Your task to perform on an android device: turn off location history Image 0: 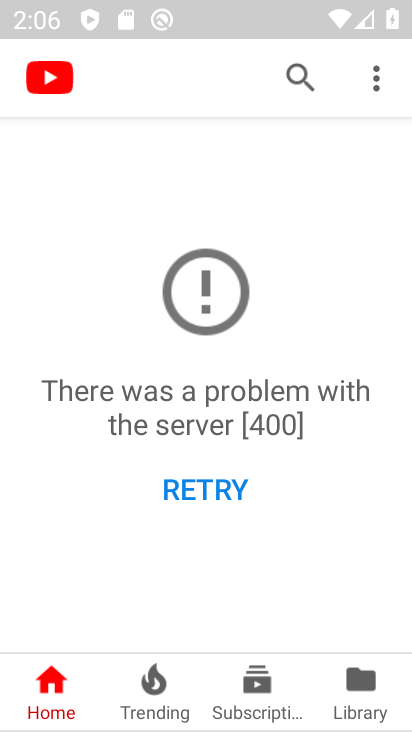
Step 0: press home button
Your task to perform on an android device: turn off location history Image 1: 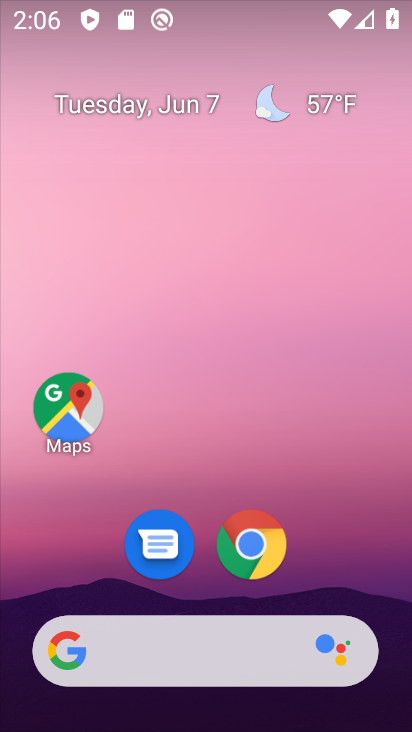
Step 1: click (54, 389)
Your task to perform on an android device: turn off location history Image 2: 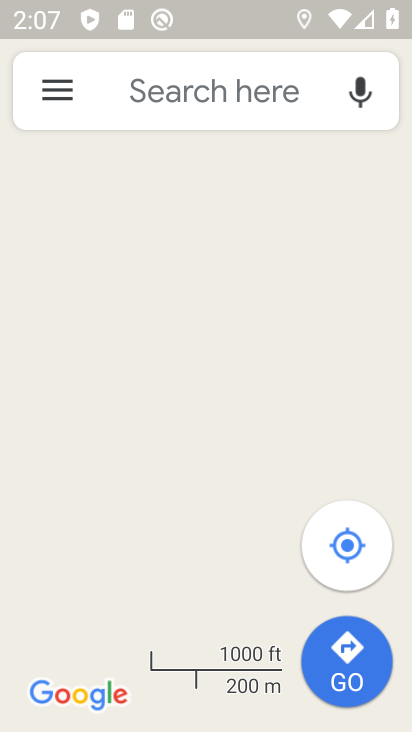
Step 2: click (60, 90)
Your task to perform on an android device: turn off location history Image 3: 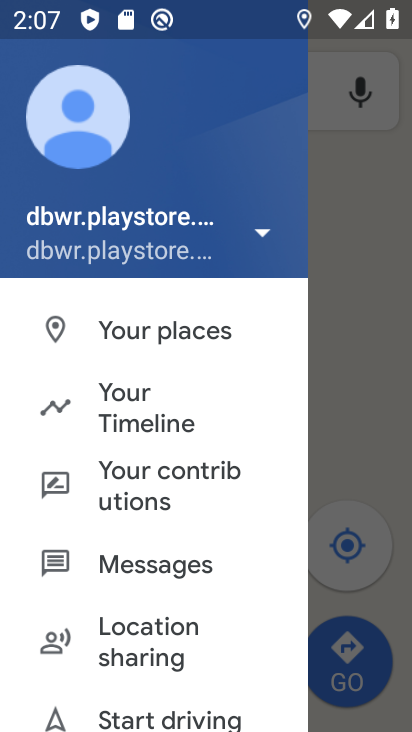
Step 3: click (135, 404)
Your task to perform on an android device: turn off location history Image 4: 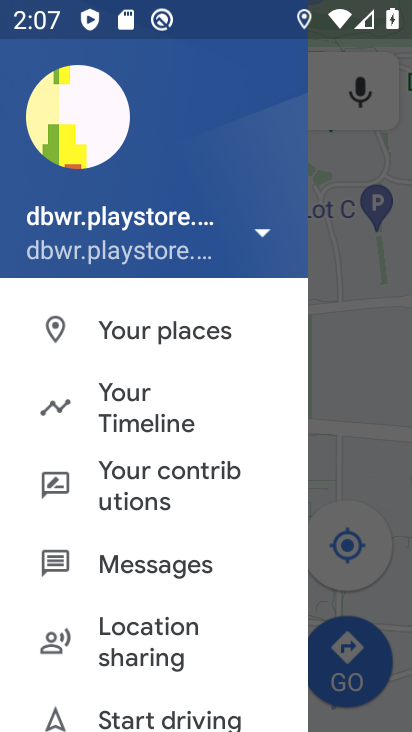
Step 4: click (139, 425)
Your task to perform on an android device: turn off location history Image 5: 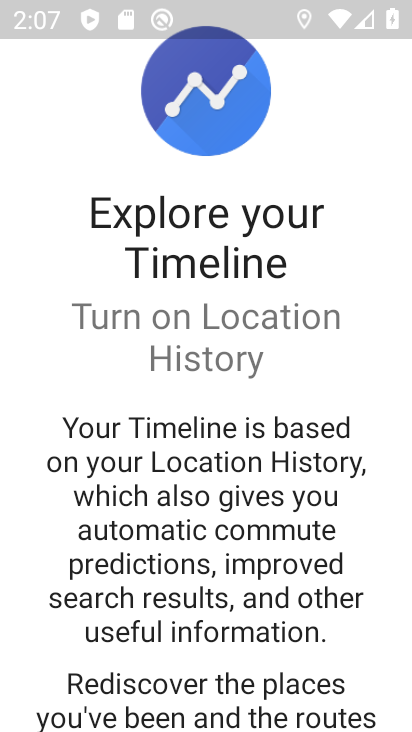
Step 5: drag from (268, 565) to (217, 231)
Your task to perform on an android device: turn off location history Image 6: 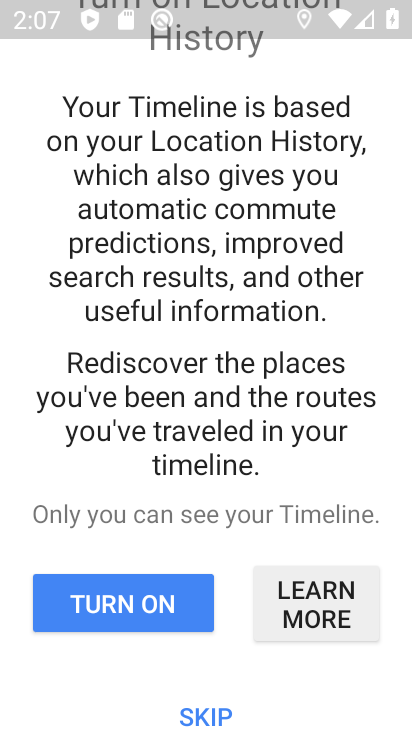
Step 6: click (230, 709)
Your task to perform on an android device: turn off location history Image 7: 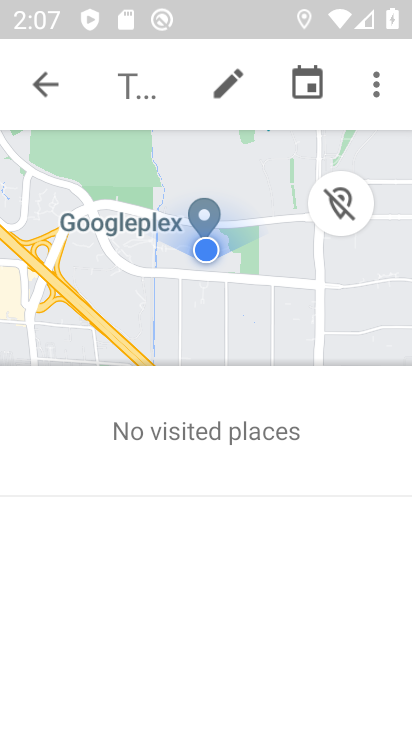
Step 7: click (362, 95)
Your task to perform on an android device: turn off location history Image 8: 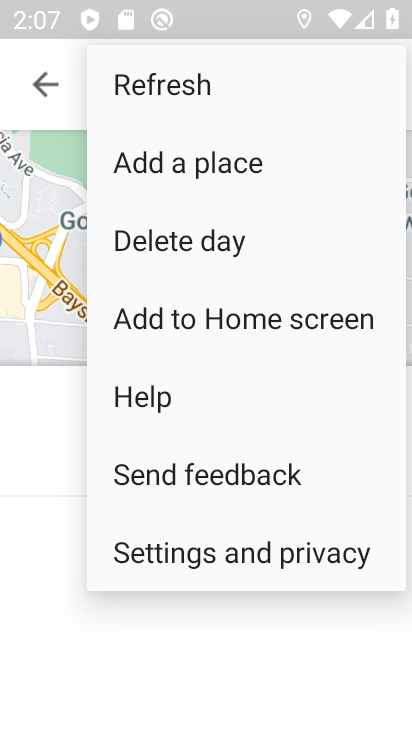
Step 8: click (228, 540)
Your task to perform on an android device: turn off location history Image 9: 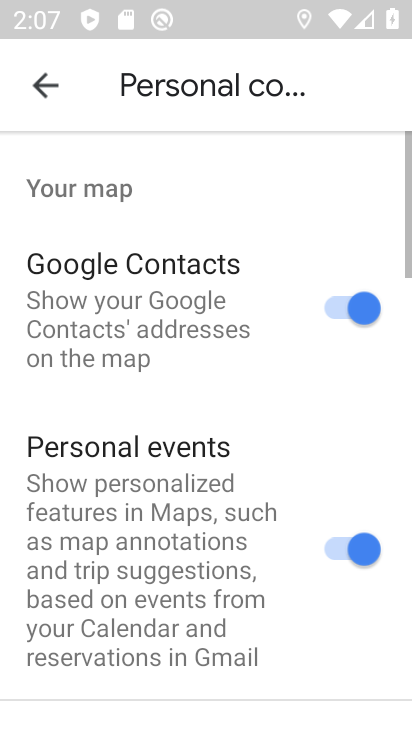
Step 9: drag from (247, 625) to (183, 245)
Your task to perform on an android device: turn off location history Image 10: 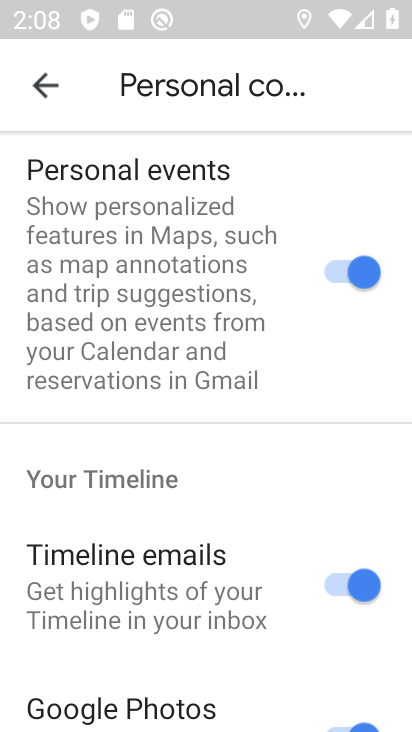
Step 10: drag from (209, 647) to (273, 283)
Your task to perform on an android device: turn off location history Image 11: 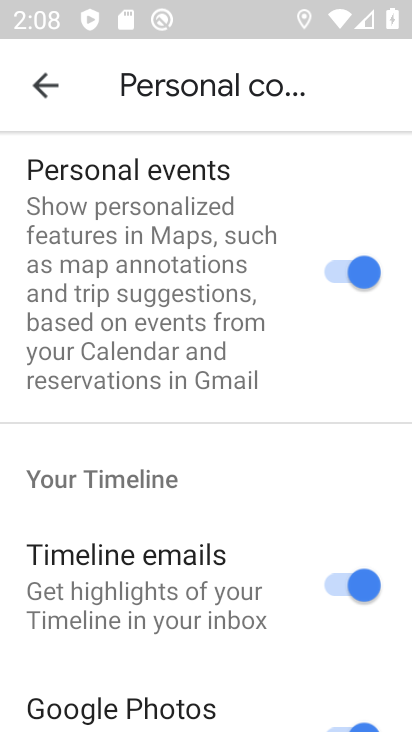
Step 11: drag from (224, 637) to (233, 184)
Your task to perform on an android device: turn off location history Image 12: 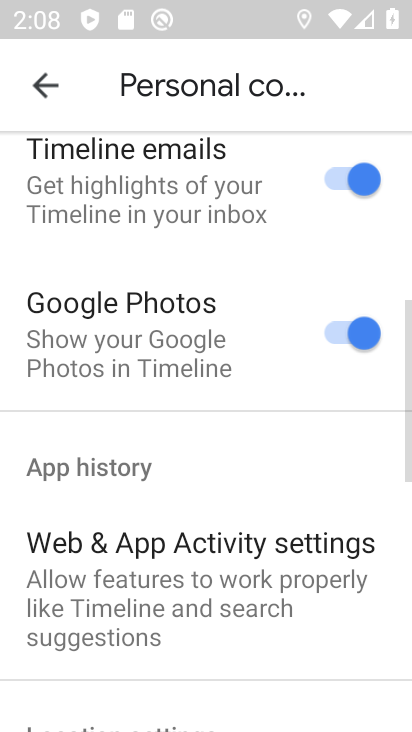
Step 12: drag from (192, 640) to (216, 357)
Your task to perform on an android device: turn off location history Image 13: 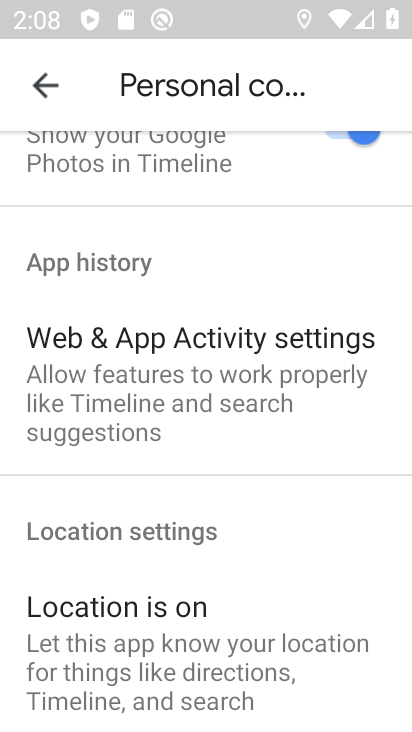
Step 13: drag from (169, 605) to (185, 262)
Your task to perform on an android device: turn off location history Image 14: 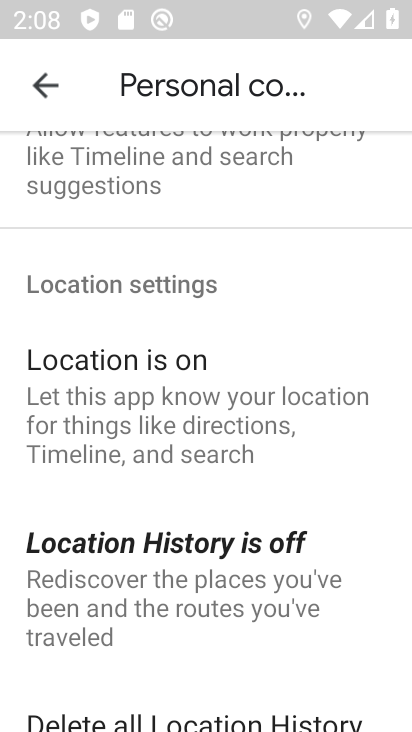
Step 14: click (182, 589)
Your task to perform on an android device: turn off location history Image 15: 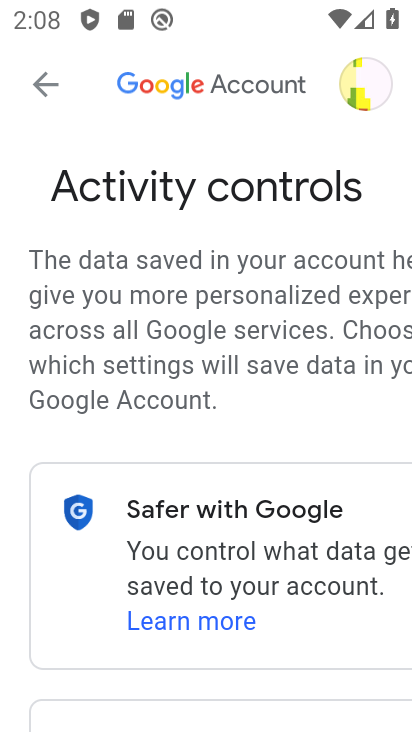
Step 15: task complete